Your task to perform on an android device: turn off notifications in google photos Image 0: 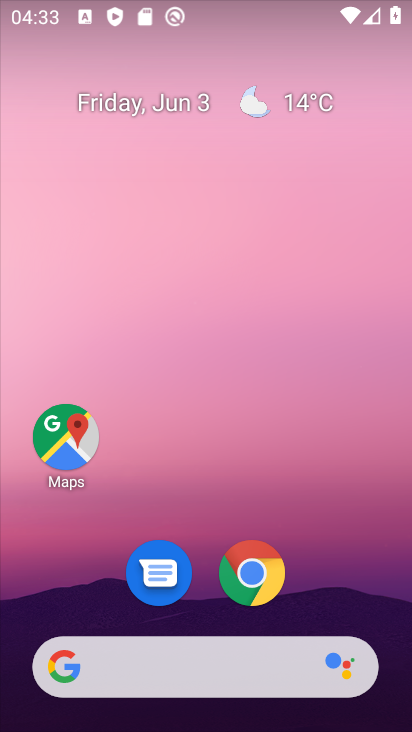
Step 0: drag from (316, 608) to (337, 44)
Your task to perform on an android device: turn off notifications in google photos Image 1: 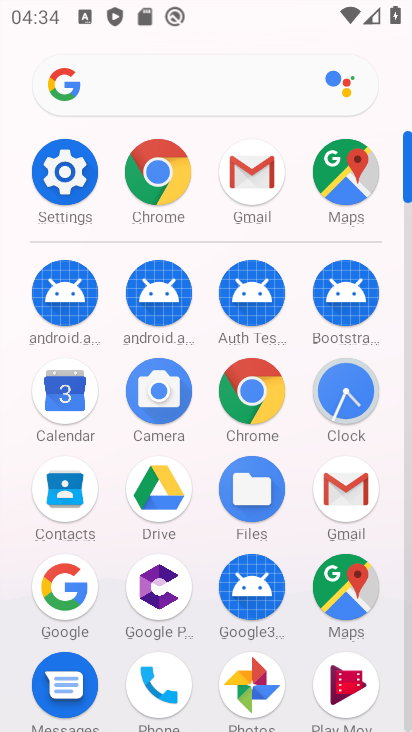
Step 1: click (274, 673)
Your task to perform on an android device: turn off notifications in google photos Image 2: 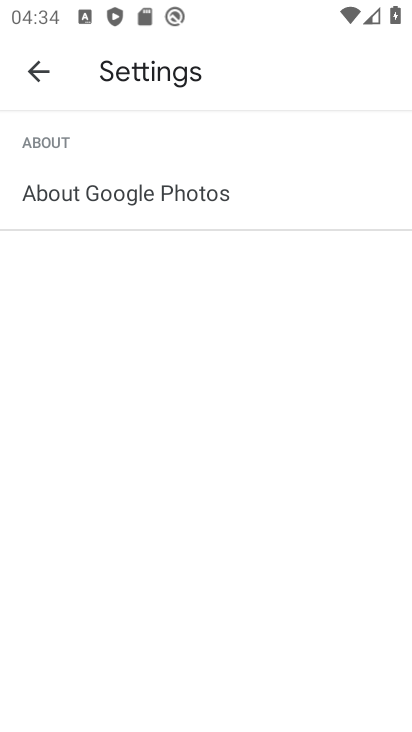
Step 2: task complete